Your task to perform on an android device: Go to Yahoo.com Image 0: 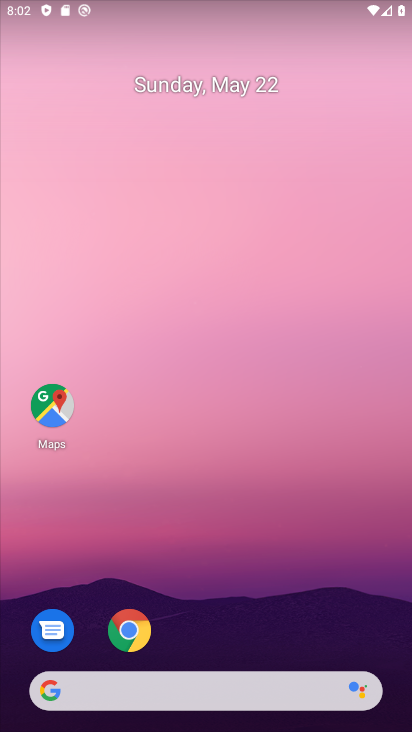
Step 0: click (187, 680)
Your task to perform on an android device: Go to Yahoo.com Image 1: 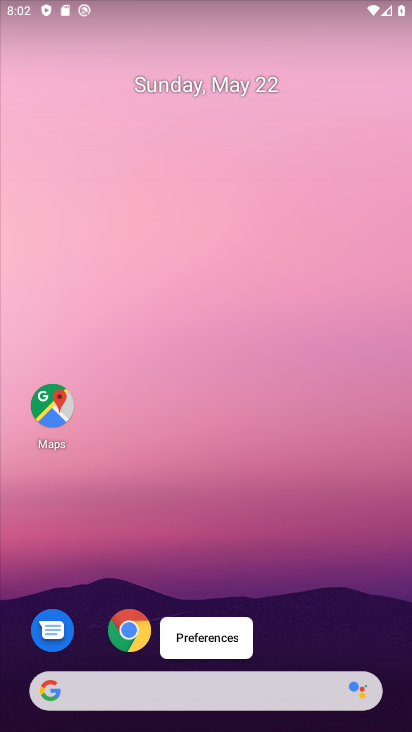
Step 1: click (152, 697)
Your task to perform on an android device: Go to Yahoo.com Image 2: 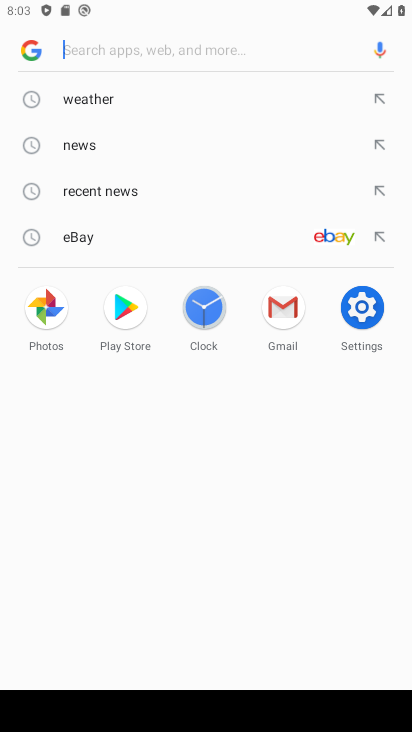
Step 2: type "yahoo.com"
Your task to perform on an android device: Go to Yahoo.com Image 3: 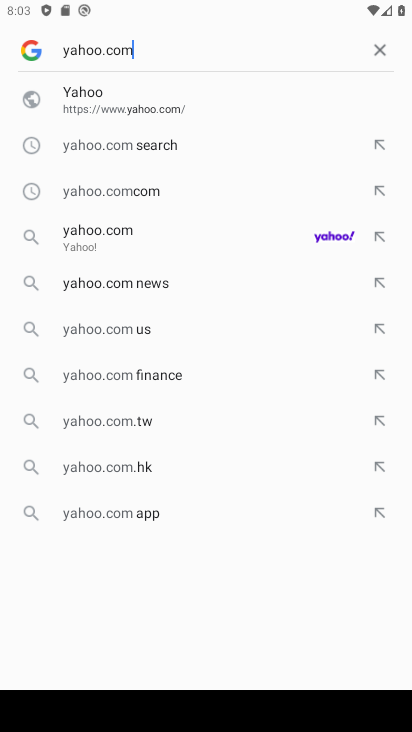
Step 3: click (113, 41)
Your task to perform on an android device: Go to Yahoo.com Image 4: 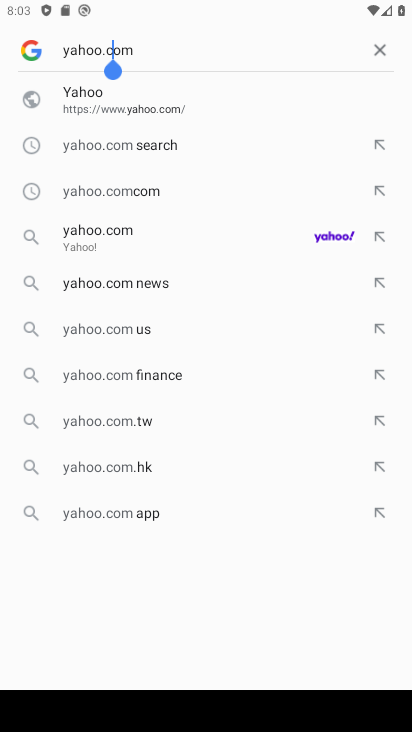
Step 4: click (110, 106)
Your task to perform on an android device: Go to Yahoo.com Image 5: 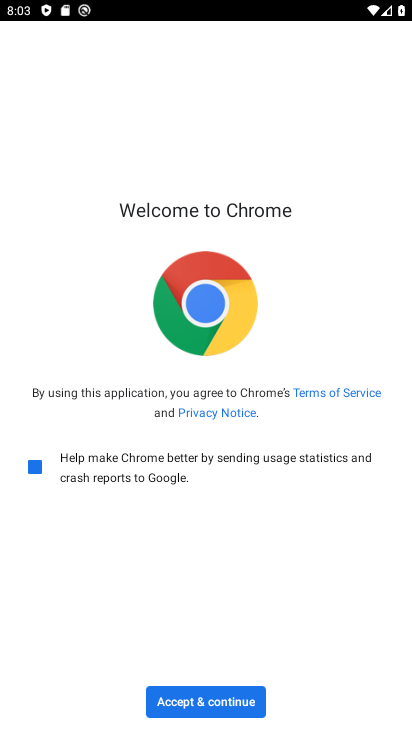
Step 5: task complete